Your task to perform on an android device: move a message to another label in the gmail app Image 0: 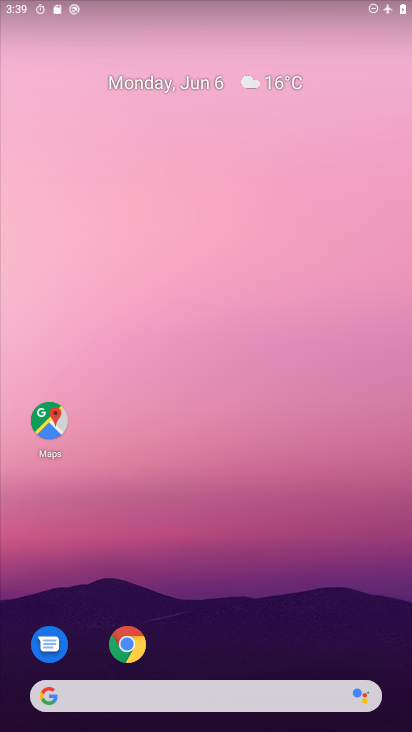
Step 0: drag from (289, 605) to (265, 80)
Your task to perform on an android device: move a message to another label in the gmail app Image 1: 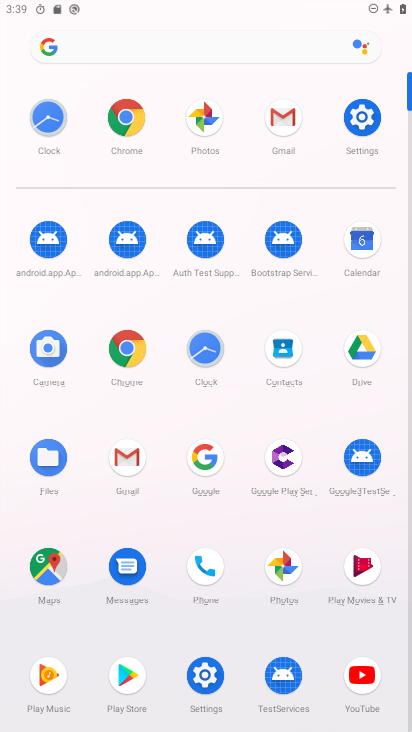
Step 1: click (129, 451)
Your task to perform on an android device: move a message to another label in the gmail app Image 2: 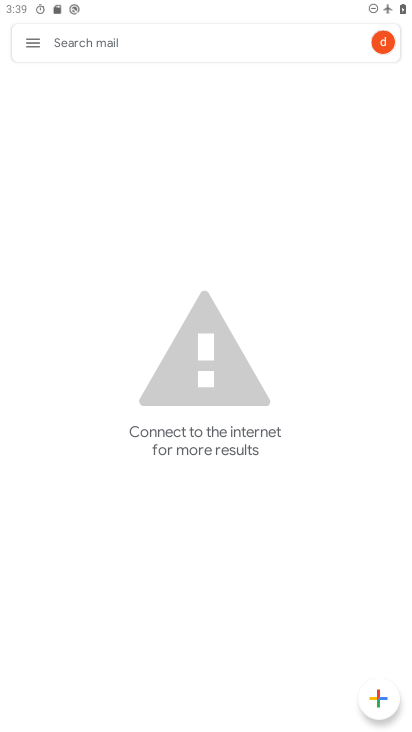
Step 2: click (30, 40)
Your task to perform on an android device: move a message to another label in the gmail app Image 3: 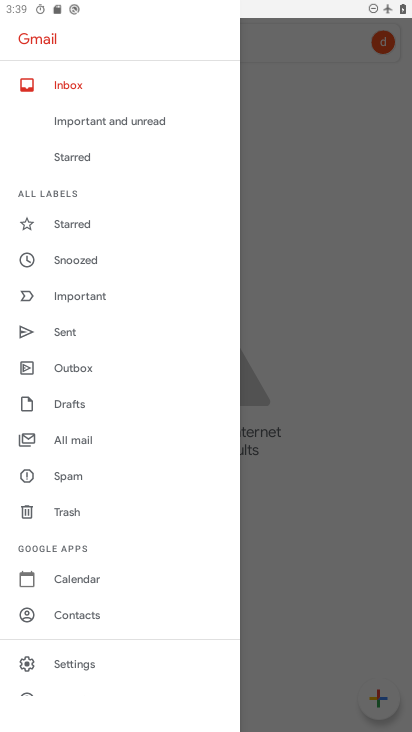
Step 3: drag from (94, 602) to (121, 523)
Your task to perform on an android device: move a message to another label in the gmail app Image 4: 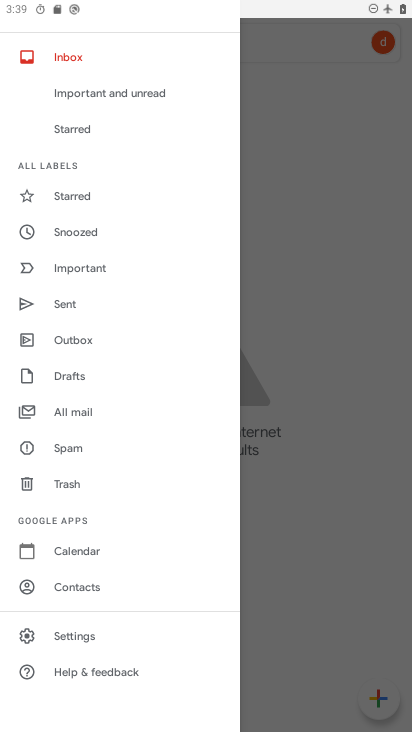
Step 4: click (61, 203)
Your task to perform on an android device: move a message to another label in the gmail app Image 5: 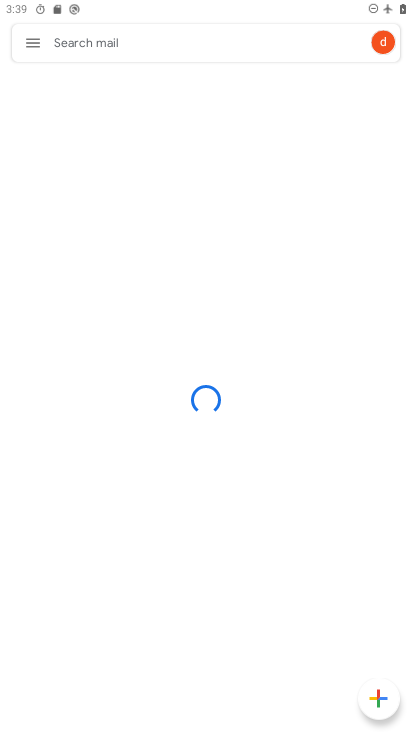
Step 5: task complete